Your task to perform on an android device: Open Google Chrome and click the shortcut for Amazon.com Image 0: 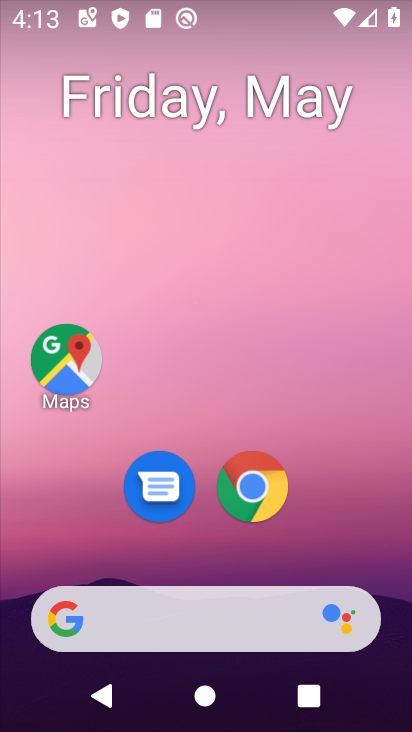
Step 0: drag from (355, 563) to (245, 23)
Your task to perform on an android device: Open Google Chrome and click the shortcut for Amazon.com Image 1: 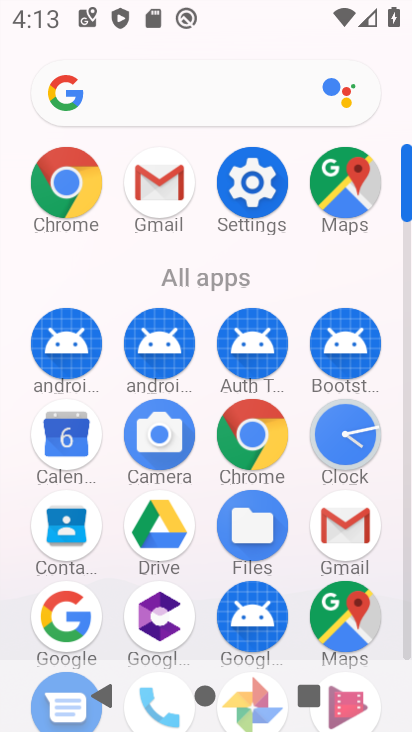
Step 1: drag from (4, 524) to (8, 231)
Your task to perform on an android device: Open Google Chrome and click the shortcut for Amazon.com Image 2: 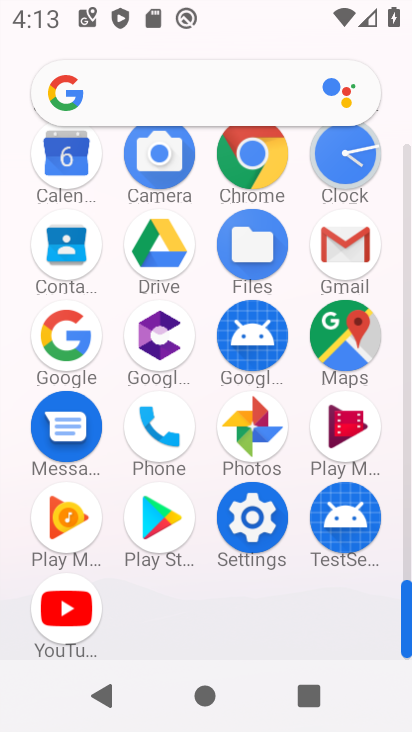
Step 2: click (253, 155)
Your task to perform on an android device: Open Google Chrome and click the shortcut for Amazon.com Image 3: 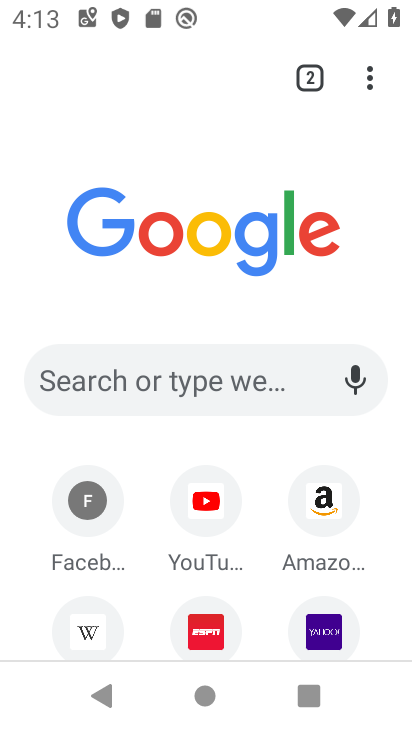
Step 3: click (341, 509)
Your task to perform on an android device: Open Google Chrome and click the shortcut for Amazon.com Image 4: 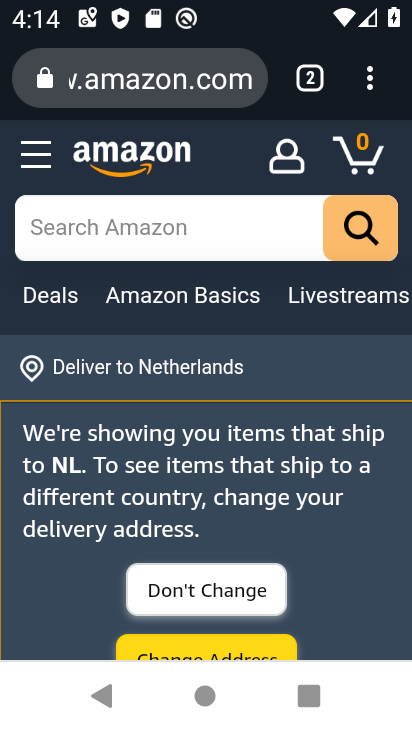
Step 4: drag from (371, 85) to (197, 424)
Your task to perform on an android device: Open Google Chrome and click the shortcut for Amazon.com Image 5: 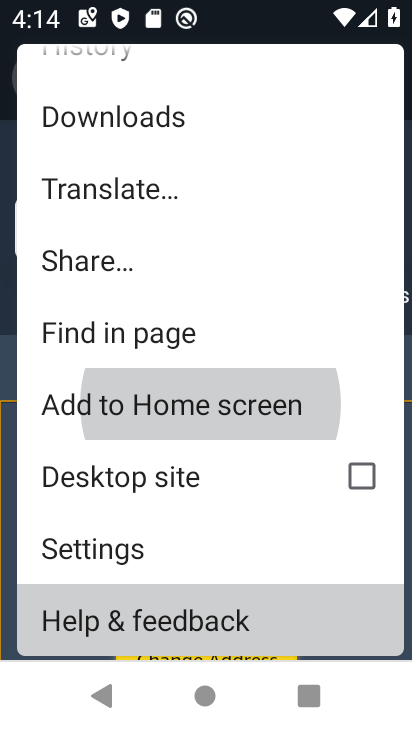
Step 5: drag from (201, 408) to (273, 425)
Your task to perform on an android device: Open Google Chrome and click the shortcut for Amazon.com Image 6: 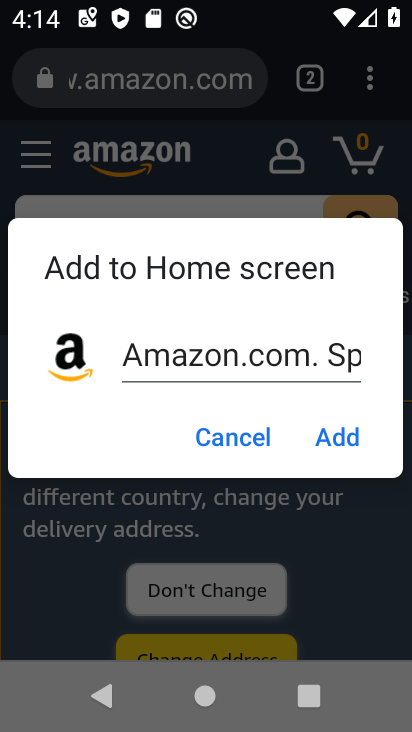
Step 6: click (318, 433)
Your task to perform on an android device: Open Google Chrome and click the shortcut for Amazon.com Image 7: 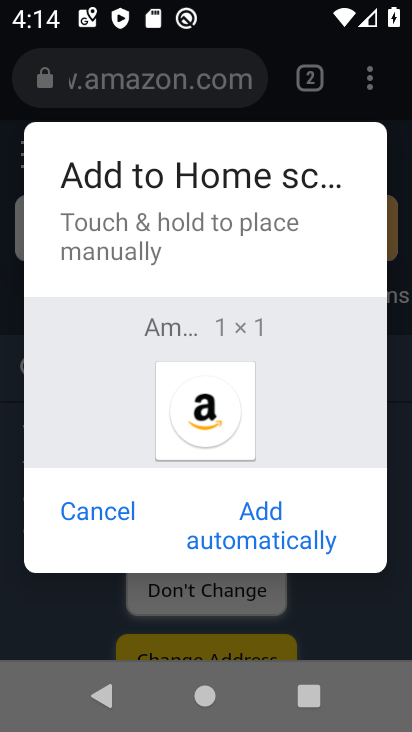
Step 7: click (260, 526)
Your task to perform on an android device: Open Google Chrome and click the shortcut for Amazon.com Image 8: 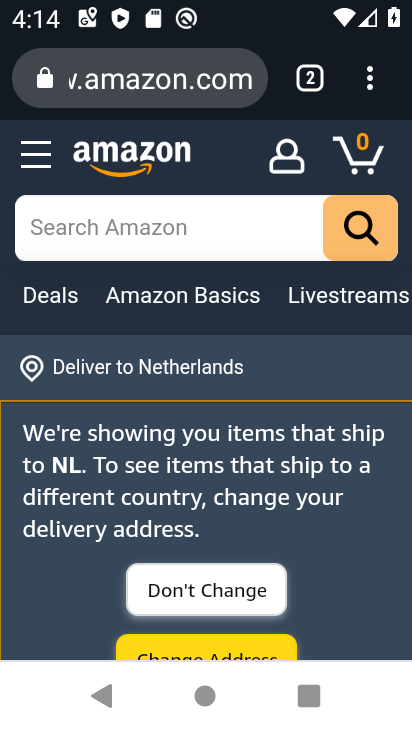
Step 8: task complete